Your task to perform on an android device: What's the weather going to be this weekend? Image 0: 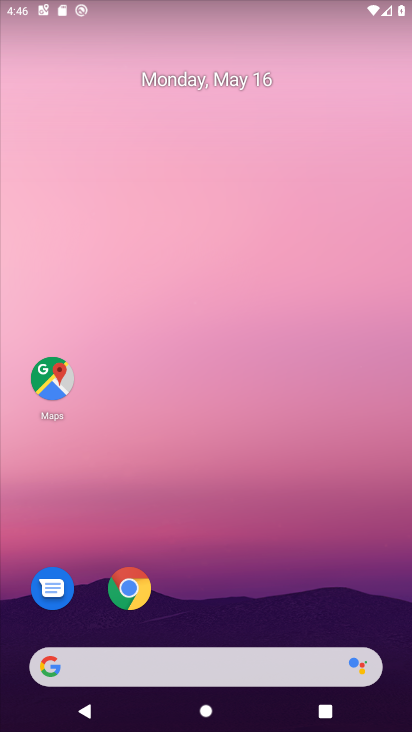
Step 0: drag from (264, 589) to (182, 88)
Your task to perform on an android device: What's the weather going to be this weekend? Image 1: 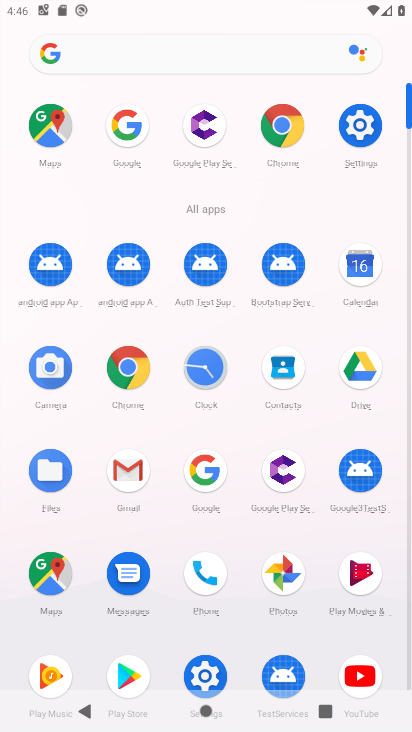
Step 1: click (210, 471)
Your task to perform on an android device: What's the weather going to be this weekend? Image 2: 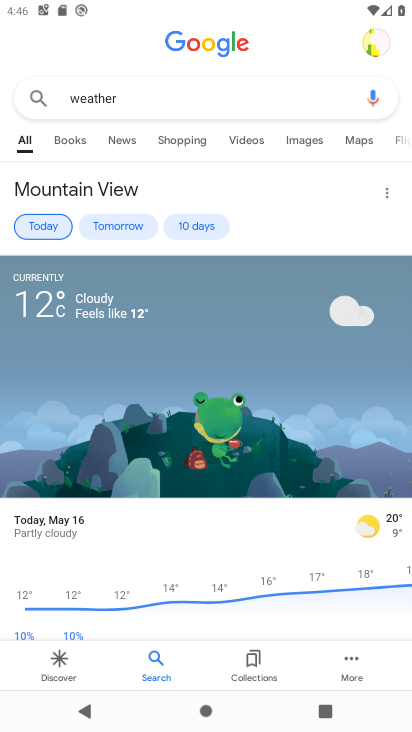
Step 2: click (205, 217)
Your task to perform on an android device: What's the weather going to be this weekend? Image 3: 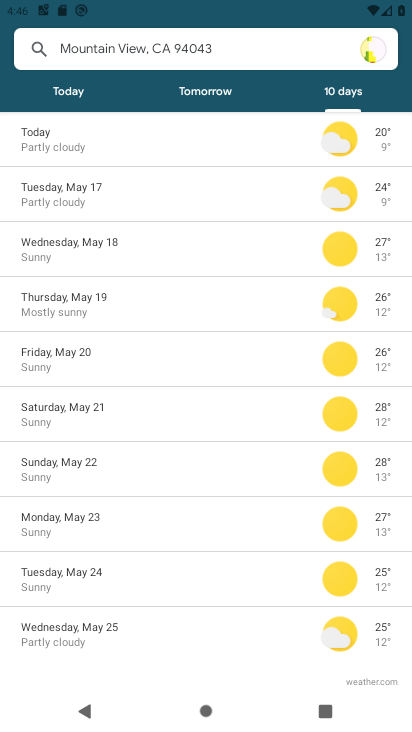
Step 3: task complete